Your task to perform on an android device: Open the web browser Image 0: 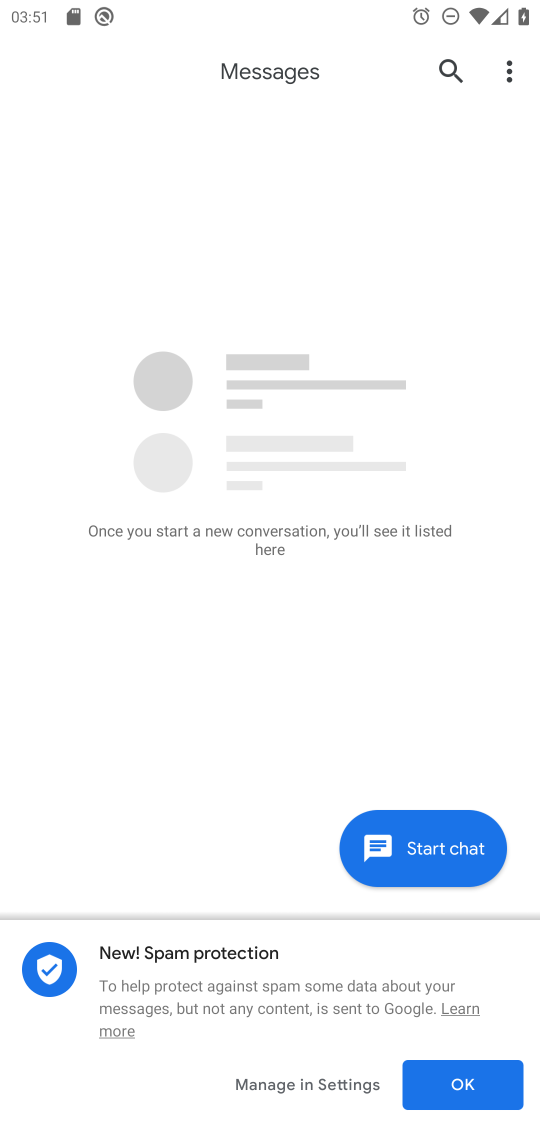
Step 0: press home button
Your task to perform on an android device: Open the web browser Image 1: 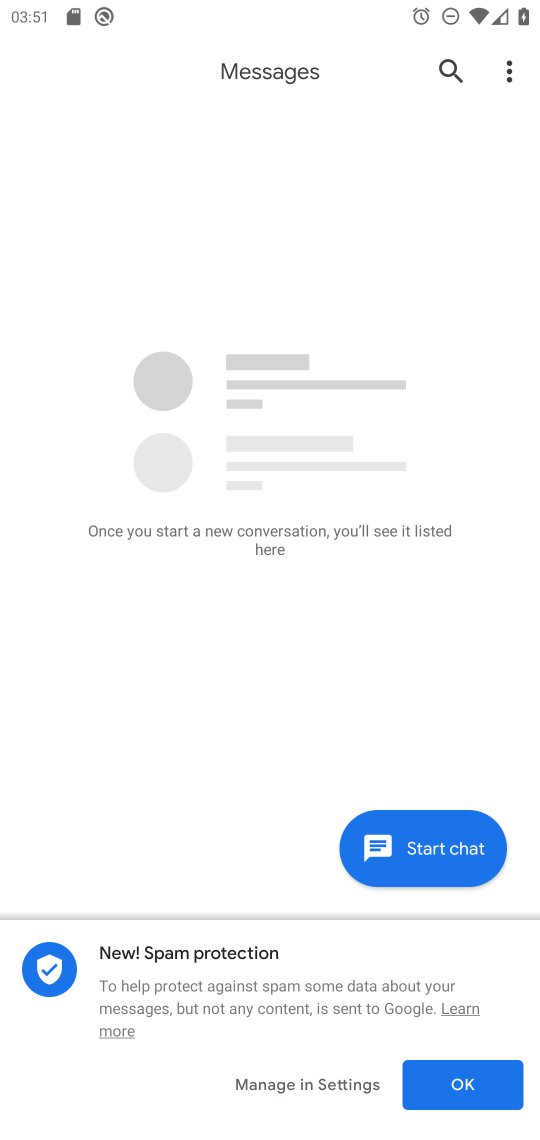
Step 1: press home button
Your task to perform on an android device: Open the web browser Image 2: 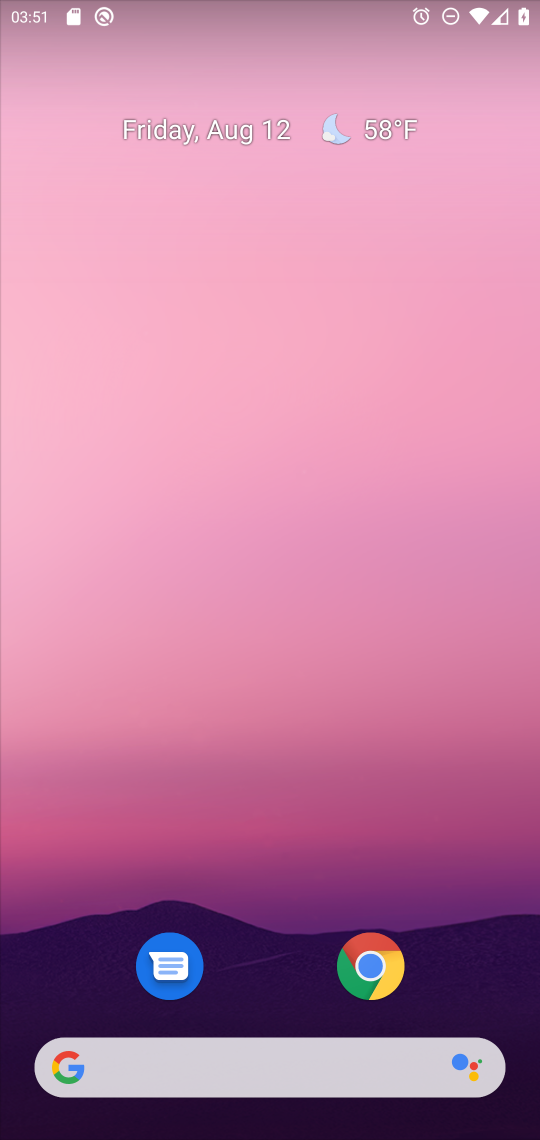
Step 2: drag from (272, 953) to (290, 60)
Your task to perform on an android device: Open the web browser Image 3: 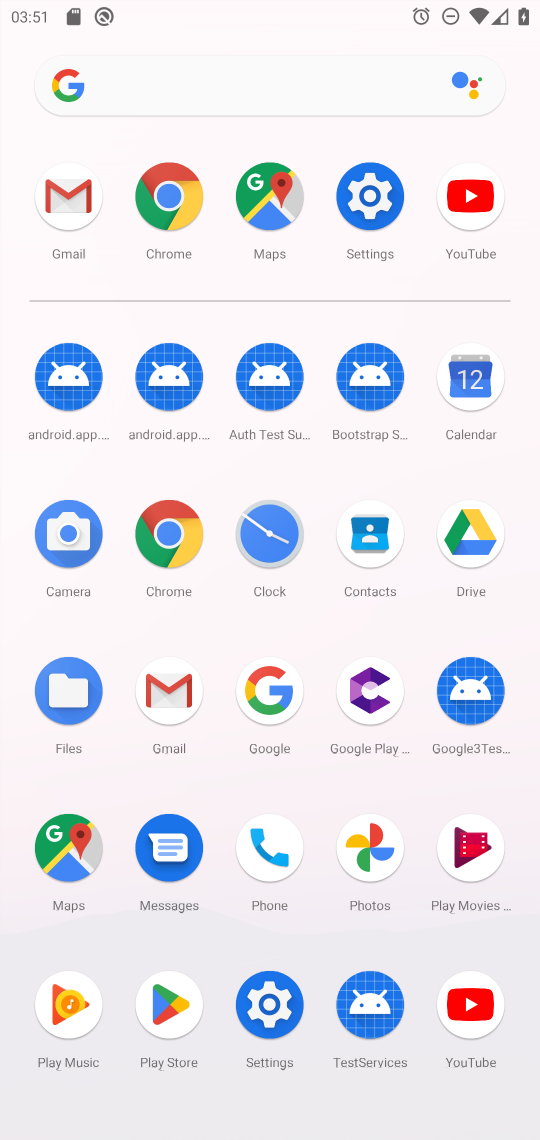
Step 3: click (172, 544)
Your task to perform on an android device: Open the web browser Image 4: 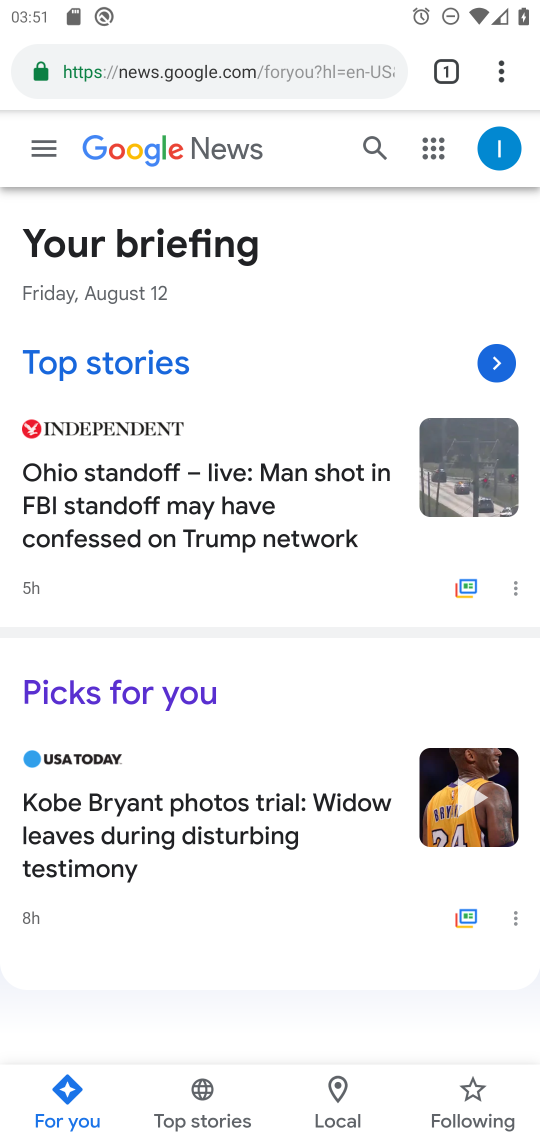
Step 4: task complete